Your task to perform on an android device: change the clock display to show seconds Image 0: 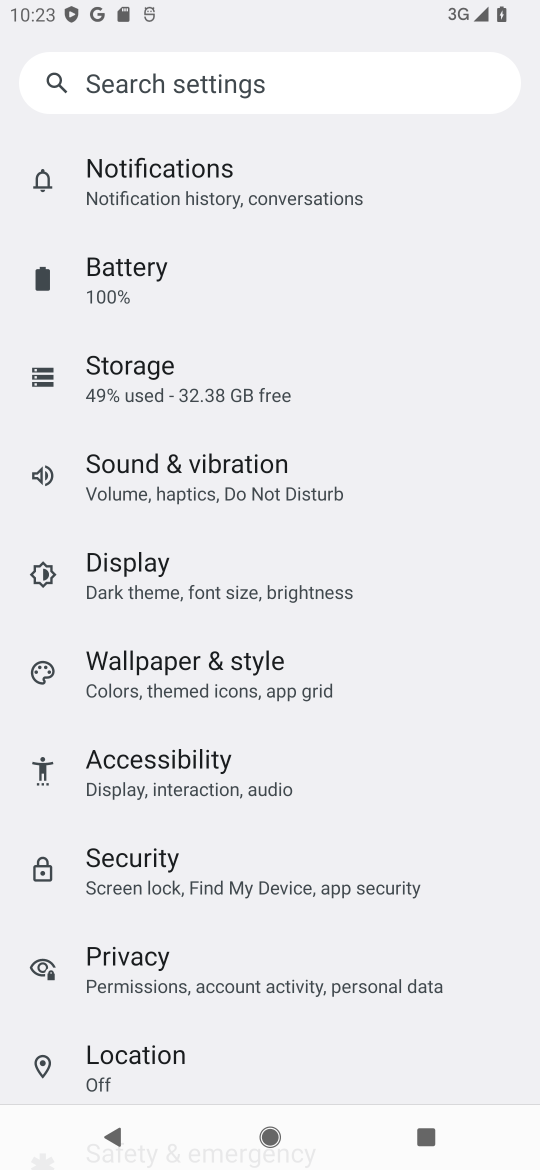
Step 0: press home button
Your task to perform on an android device: change the clock display to show seconds Image 1: 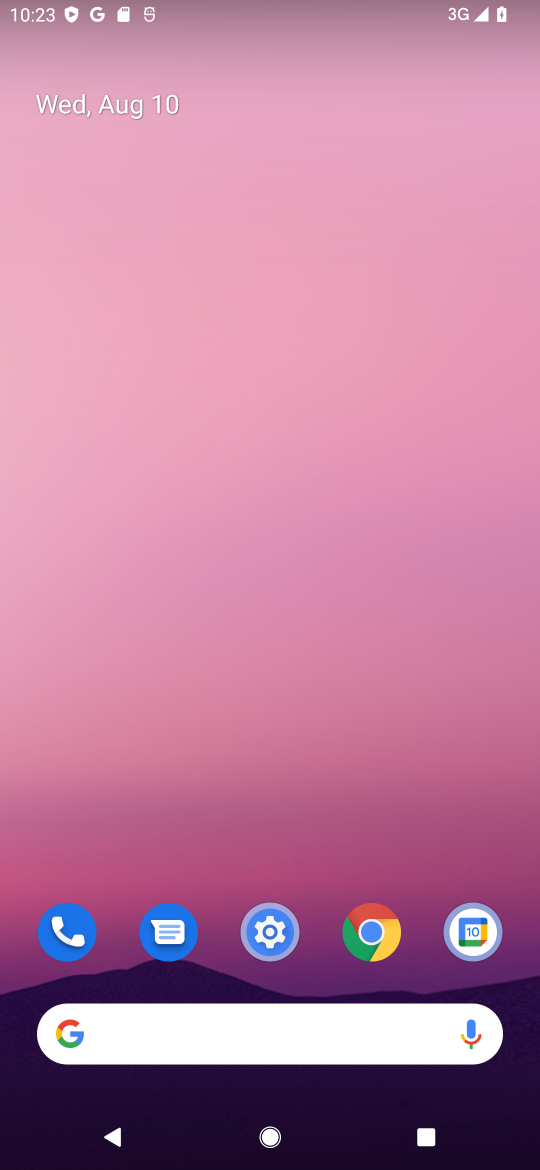
Step 1: drag from (280, 860) to (280, 51)
Your task to perform on an android device: change the clock display to show seconds Image 2: 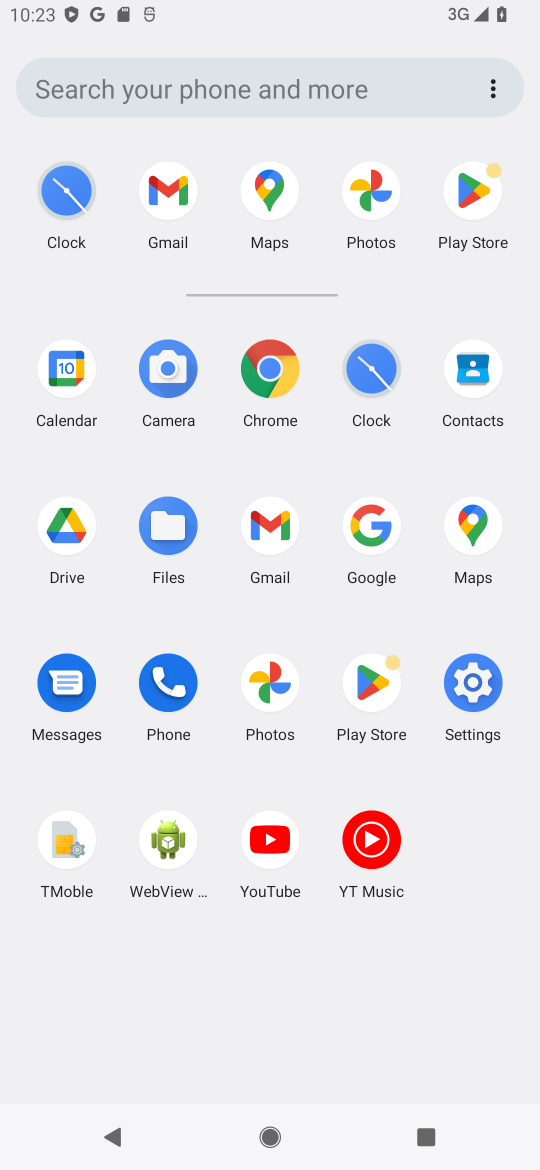
Step 2: click (66, 188)
Your task to perform on an android device: change the clock display to show seconds Image 3: 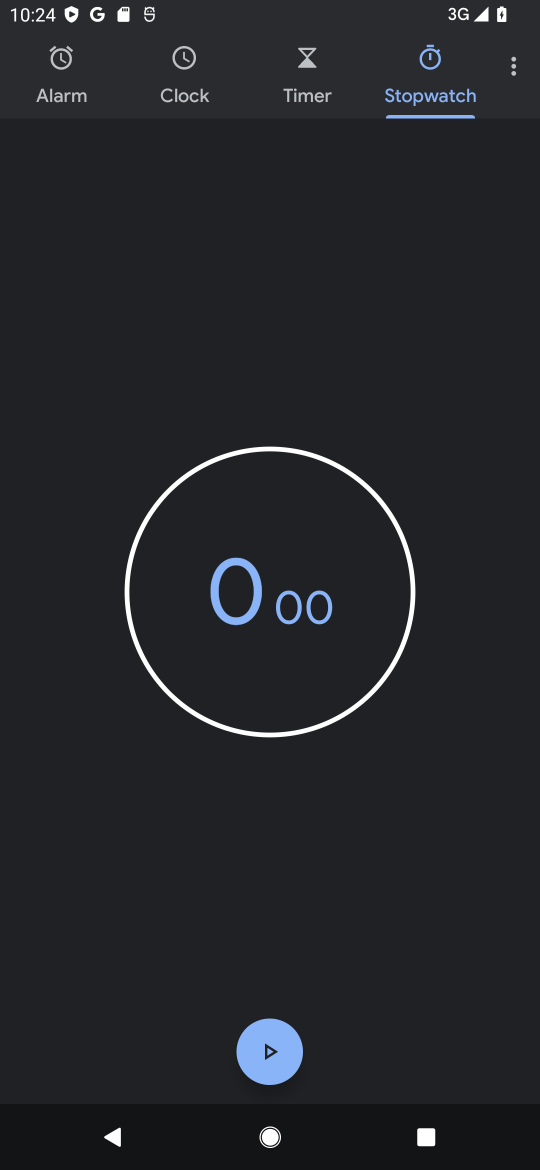
Step 3: click (508, 72)
Your task to perform on an android device: change the clock display to show seconds Image 4: 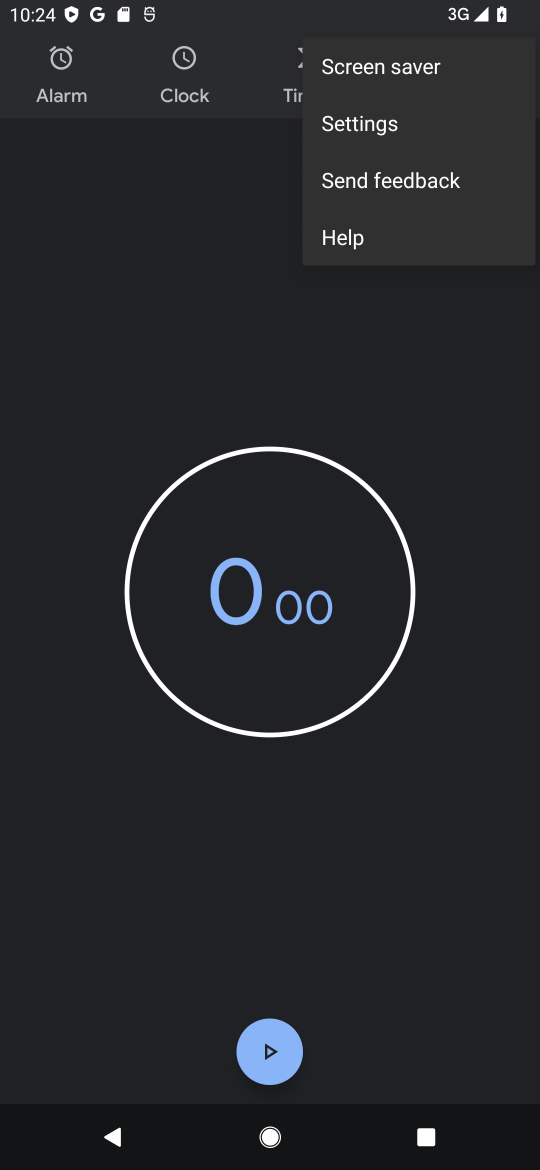
Step 4: click (378, 126)
Your task to perform on an android device: change the clock display to show seconds Image 5: 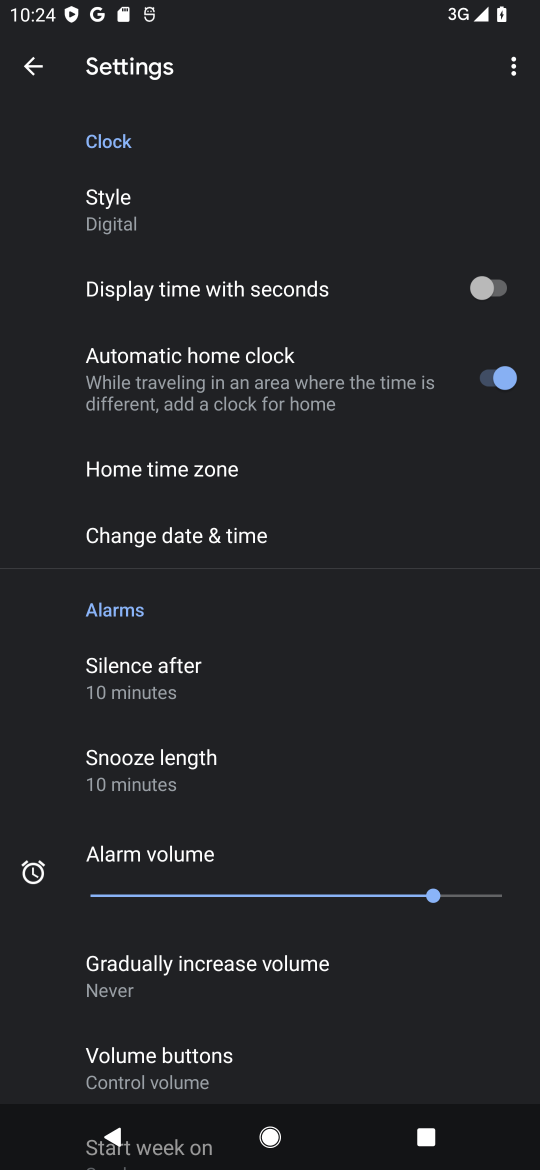
Step 5: click (481, 283)
Your task to perform on an android device: change the clock display to show seconds Image 6: 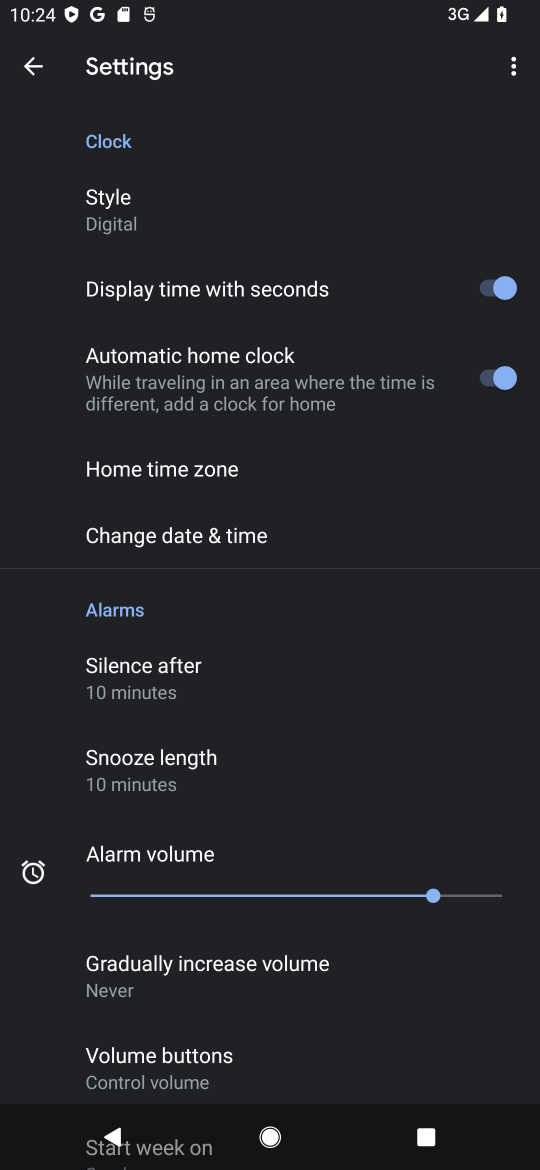
Step 6: task complete